Your task to perform on an android device: Open Chrome and go to the settings page Image 0: 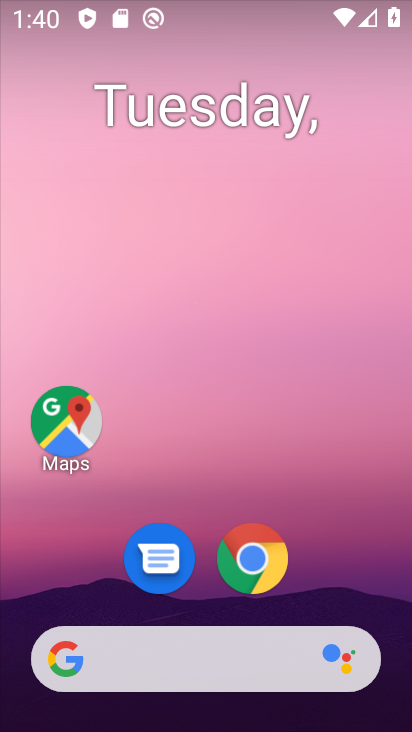
Step 0: click (247, 544)
Your task to perform on an android device: Open Chrome and go to the settings page Image 1: 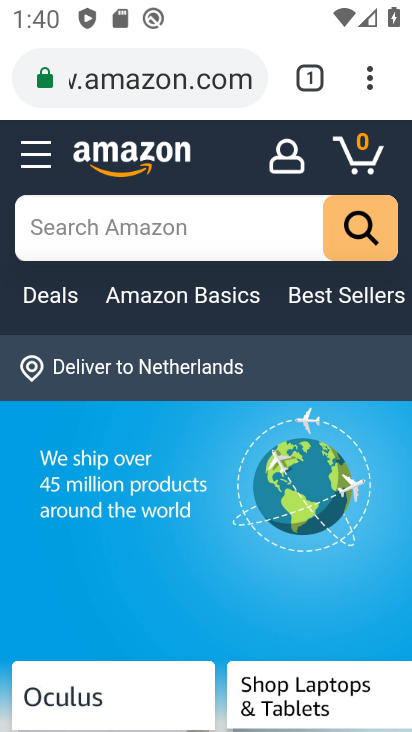
Step 1: task complete